Your task to perform on an android device: Open the map Image 0: 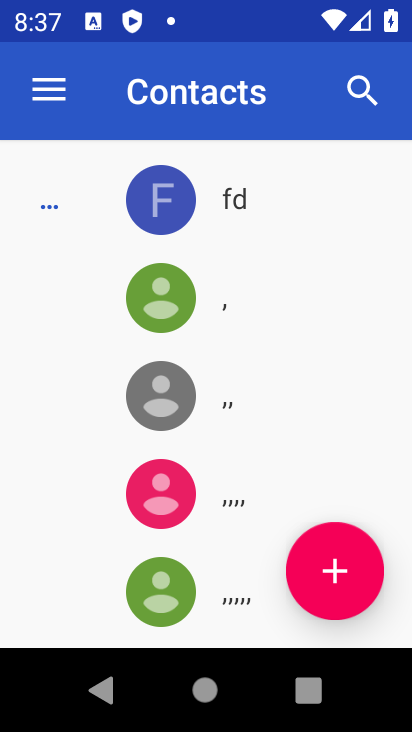
Step 0: press home button
Your task to perform on an android device: Open the map Image 1: 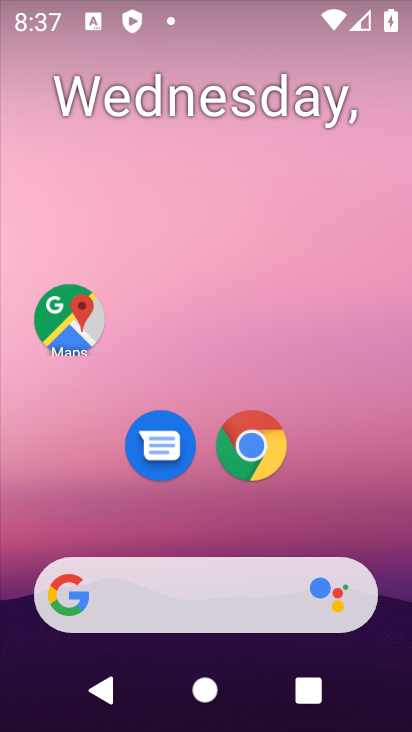
Step 1: drag from (343, 529) to (384, 7)
Your task to perform on an android device: Open the map Image 2: 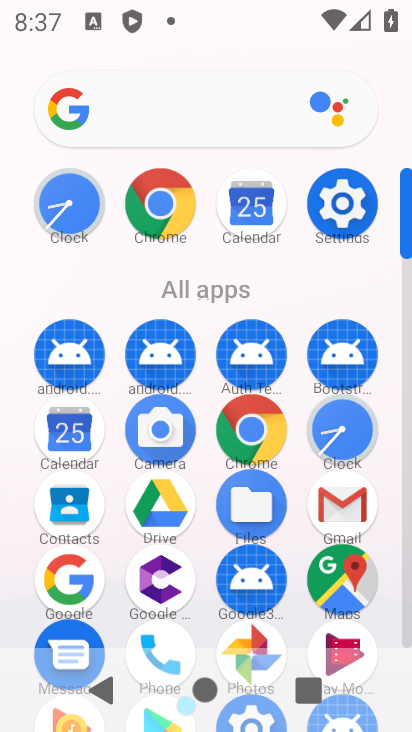
Step 2: click (356, 574)
Your task to perform on an android device: Open the map Image 3: 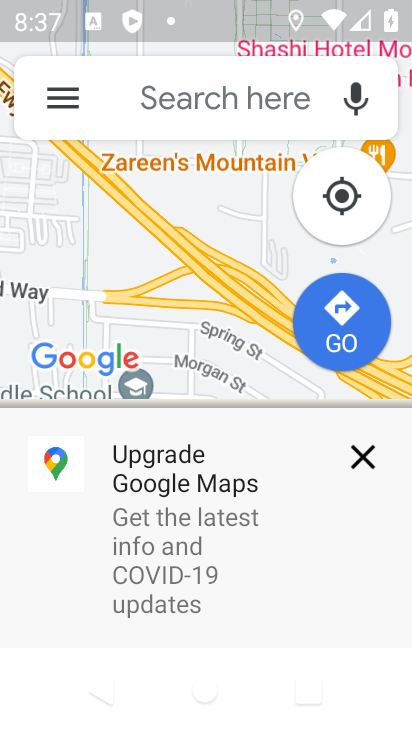
Step 3: task complete